Your task to perform on an android device: What's on my calendar tomorrow? Image 0: 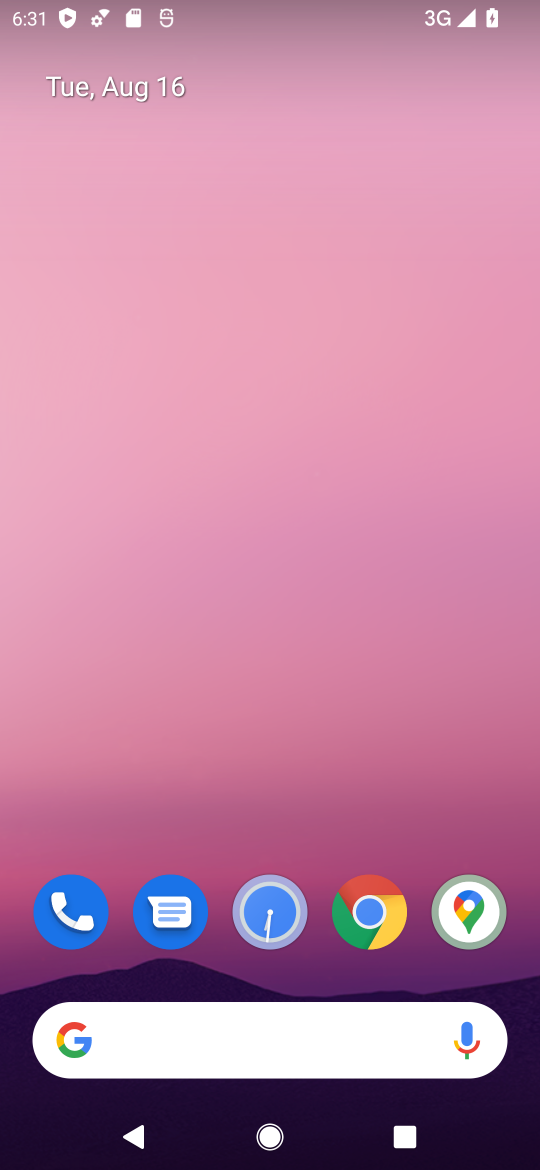
Step 0: drag from (421, 973) to (339, 63)
Your task to perform on an android device: What's on my calendar tomorrow? Image 1: 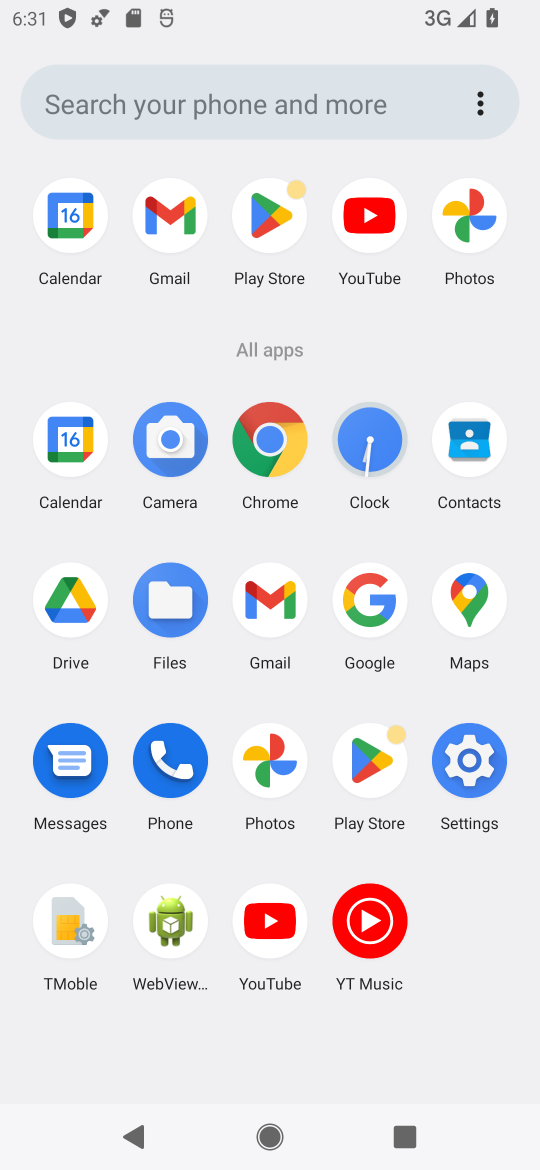
Step 1: click (69, 445)
Your task to perform on an android device: What's on my calendar tomorrow? Image 2: 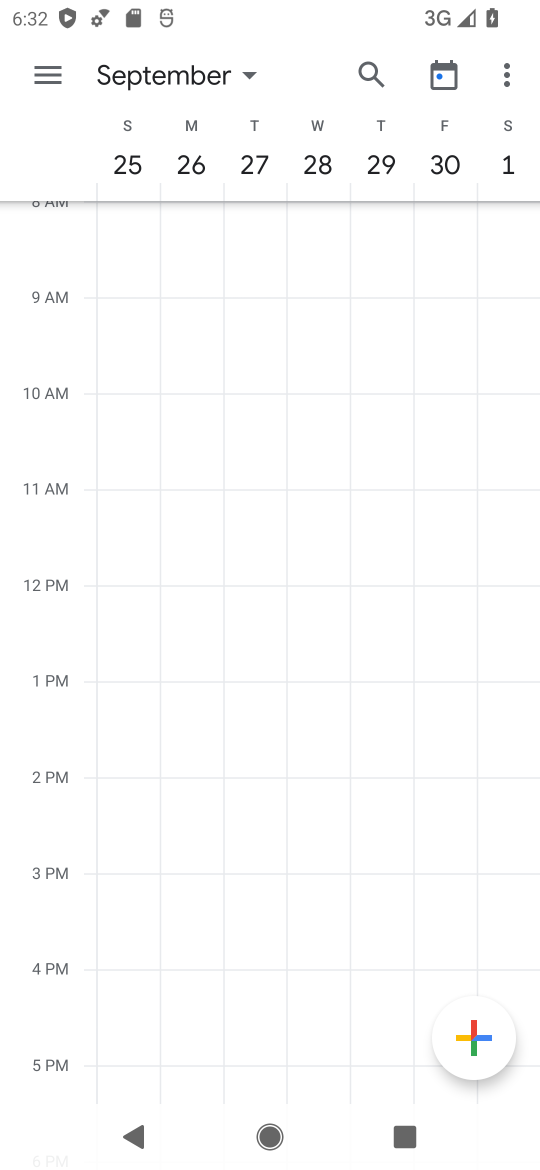
Step 2: click (29, 75)
Your task to perform on an android device: What's on my calendar tomorrow? Image 3: 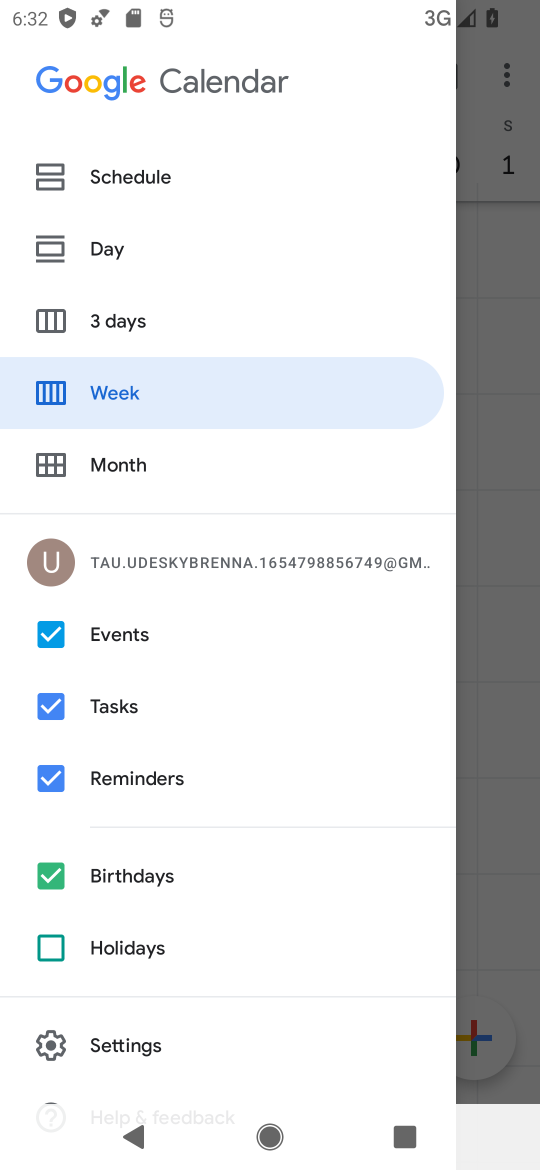
Step 3: click (115, 235)
Your task to perform on an android device: What's on my calendar tomorrow? Image 4: 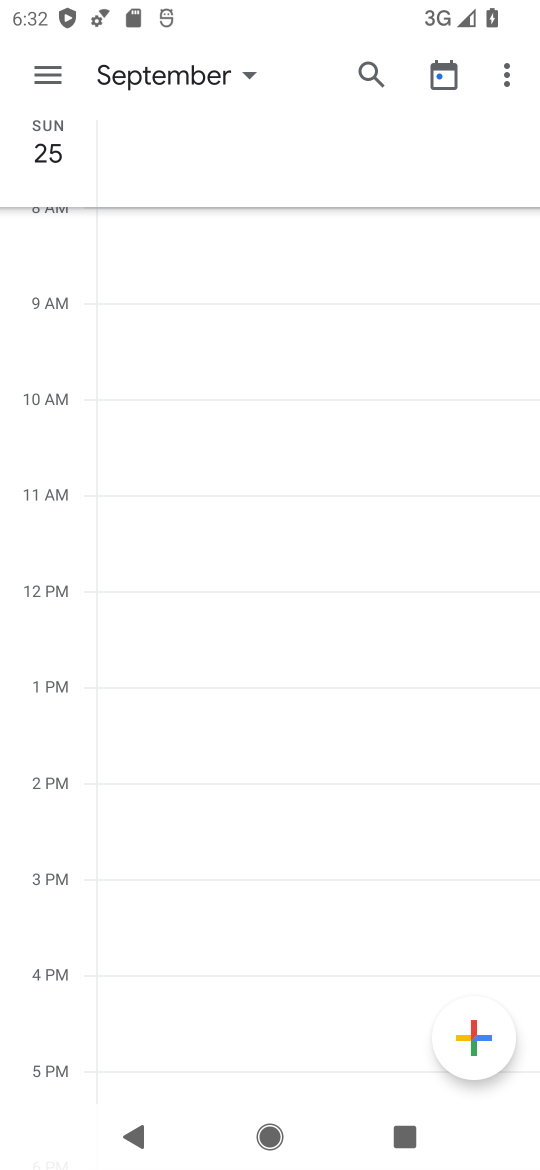
Step 4: click (246, 75)
Your task to perform on an android device: What's on my calendar tomorrow? Image 5: 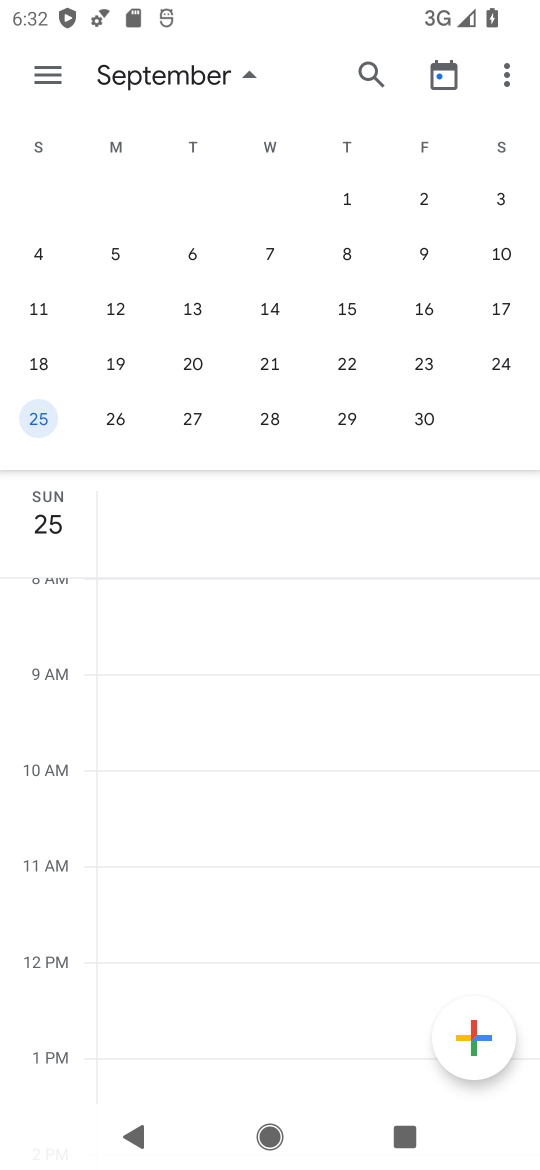
Step 5: drag from (33, 352) to (540, 291)
Your task to perform on an android device: What's on my calendar tomorrow? Image 6: 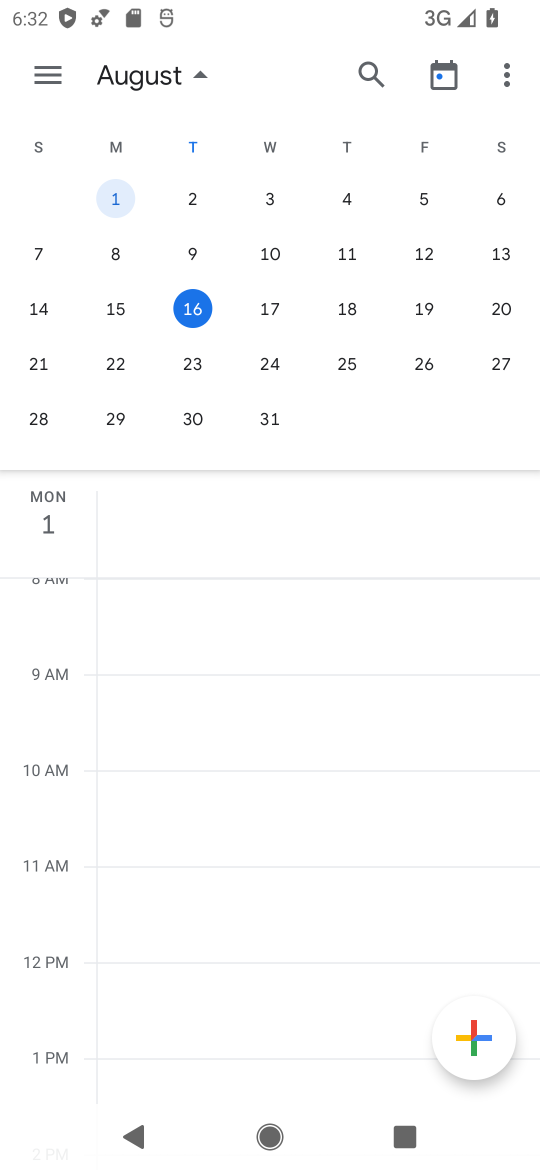
Step 6: click (272, 297)
Your task to perform on an android device: What's on my calendar tomorrow? Image 7: 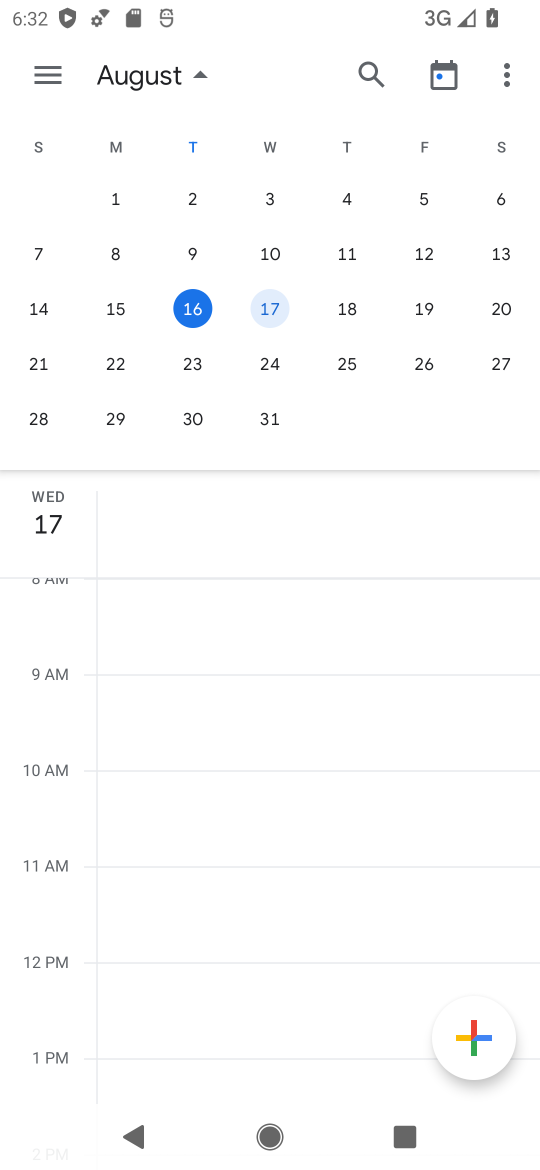
Step 7: task complete